Your task to perform on an android device: open app "Flipkart Online Shopping App" (install if not already installed) Image 0: 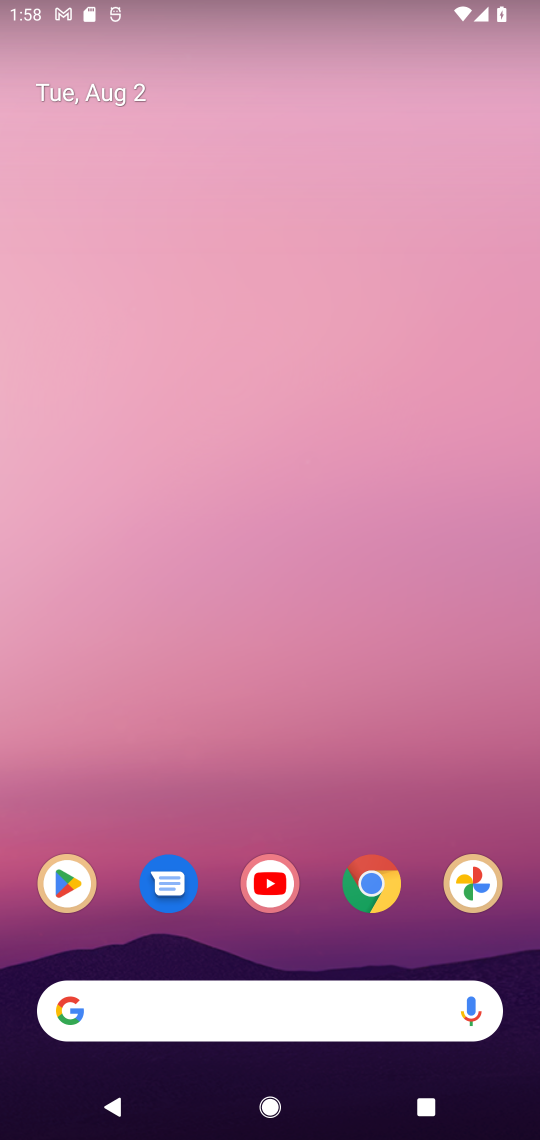
Step 0: click (64, 876)
Your task to perform on an android device: open app "Flipkart Online Shopping App" (install if not already installed) Image 1: 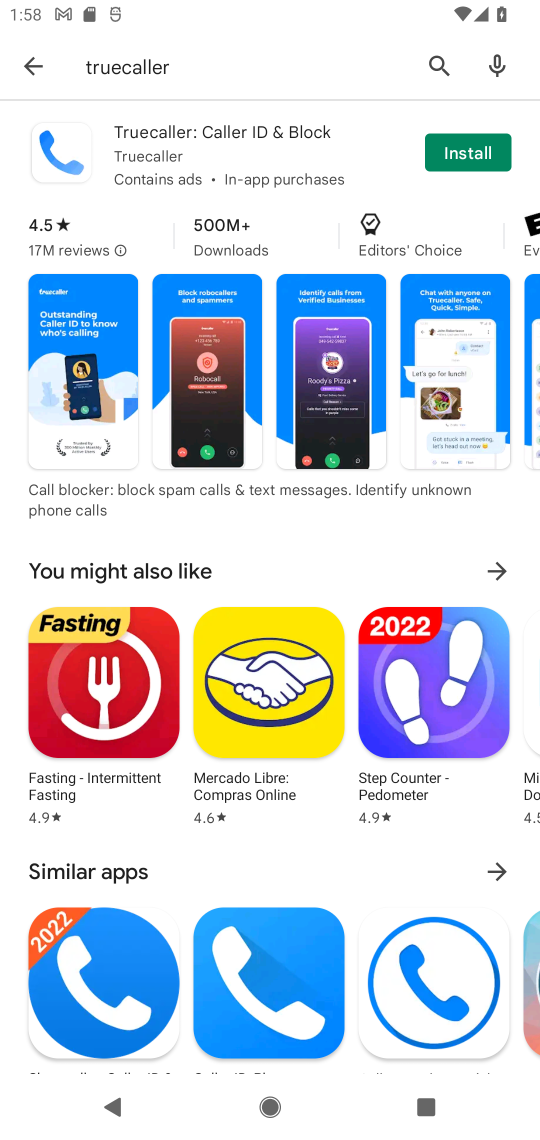
Step 1: click (422, 61)
Your task to perform on an android device: open app "Flipkart Online Shopping App" (install if not already installed) Image 2: 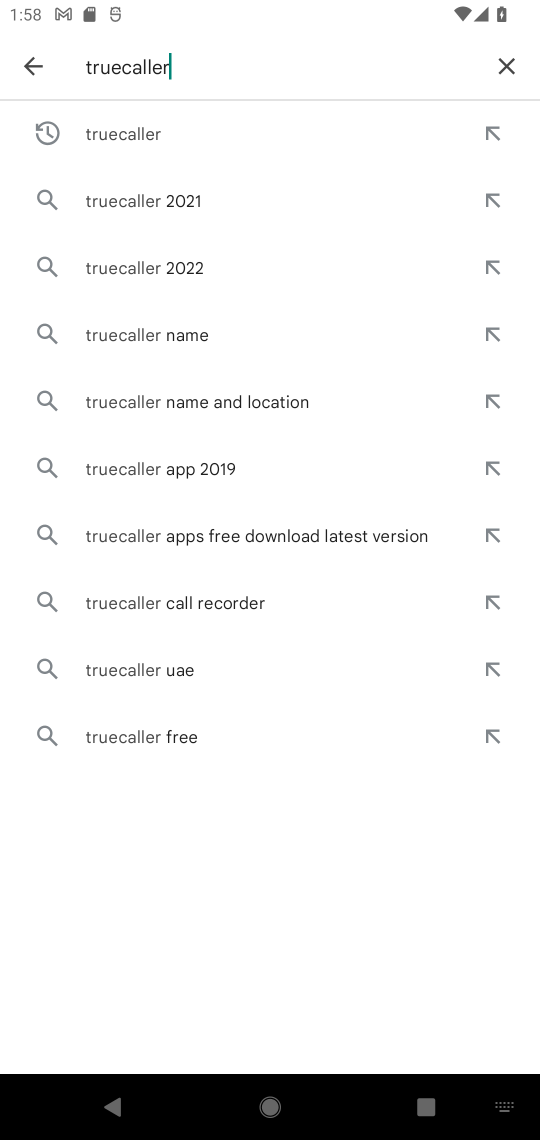
Step 2: click (507, 65)
Your task to perform on an android device: open app "Flipkart Online Shopping App" (install if not already installed) Image 3: 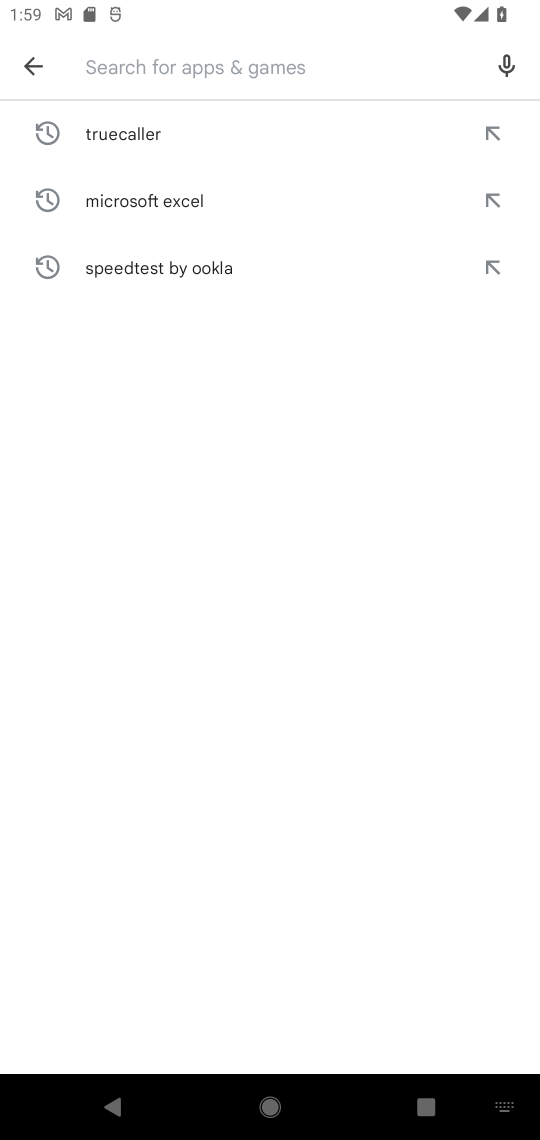
Step 3: type "Flipkart Online Shopping App"
Your task to perform on an android device: open app "Flipkart Online Shopping App" (install if not already installed) Image 4: 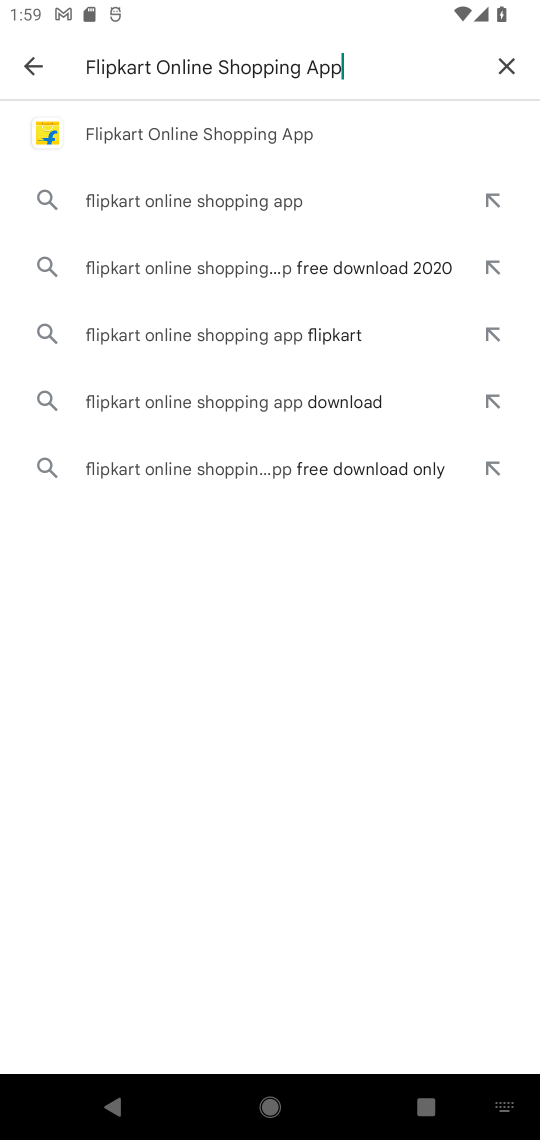
Step 4: click (250, 131)
Your task to perform on an android device: open app "Flipkart Online Shopping App" (install if not already installed) Image 5: 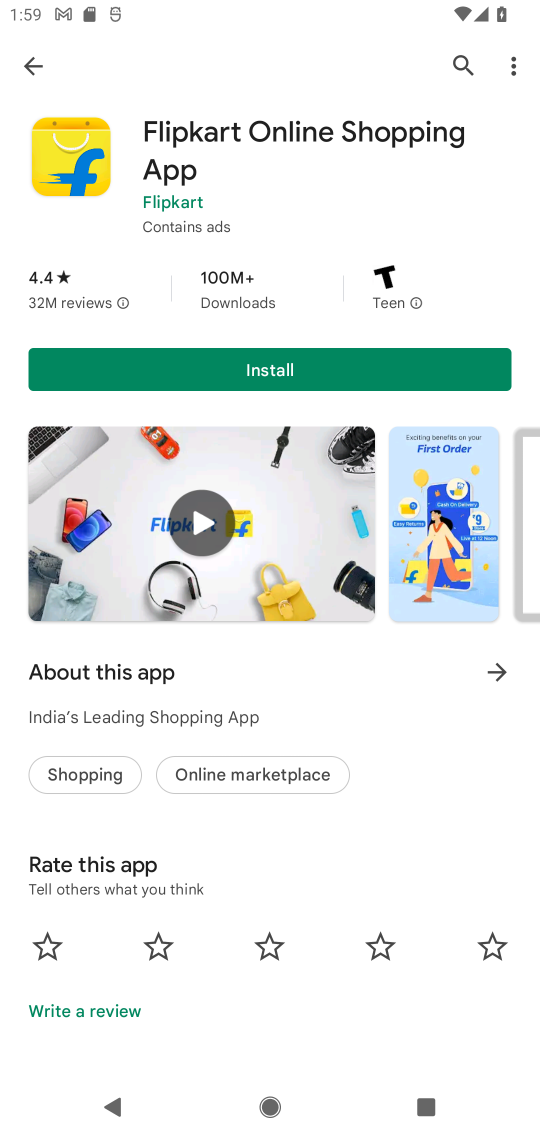
Step 5: click (322, 373)
Your task to perform on an android device: open app "Flipkart Online Shopping App" (install if not already installed) Image 6: 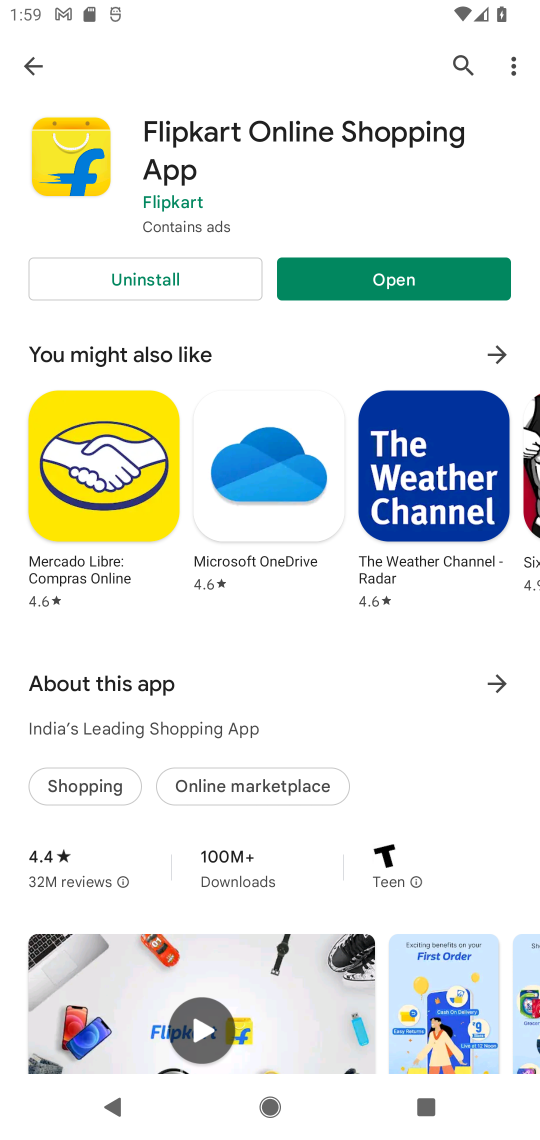
Step 6: click (456, 275)
Your task to perform on an android device: open app "Flipkart Online Shopping App" (install if not already installed) Image 7: 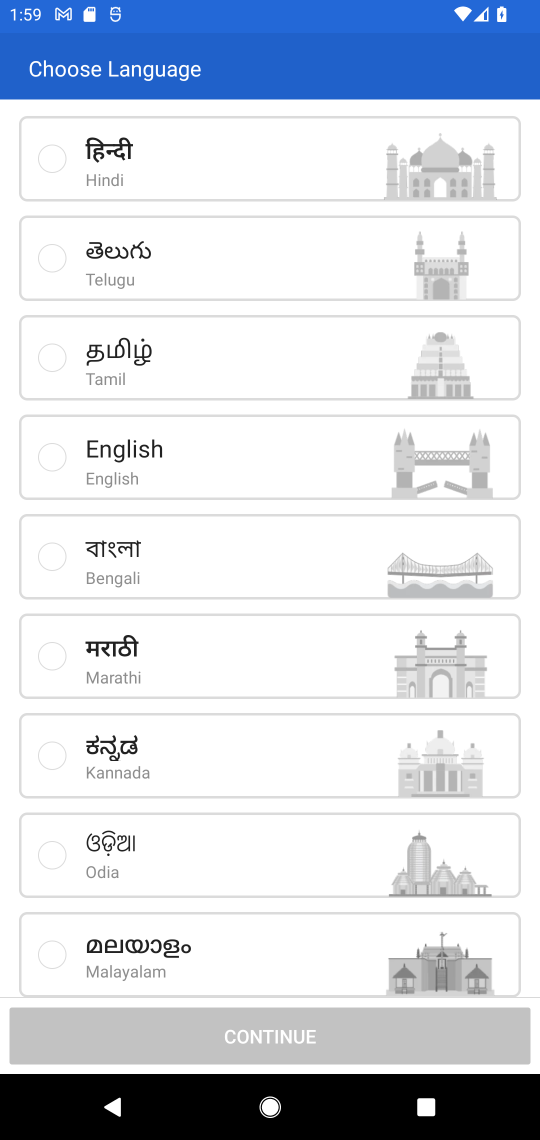
Step 7: task complete